Your task to perform on an android device: Go to location settings Image 0: 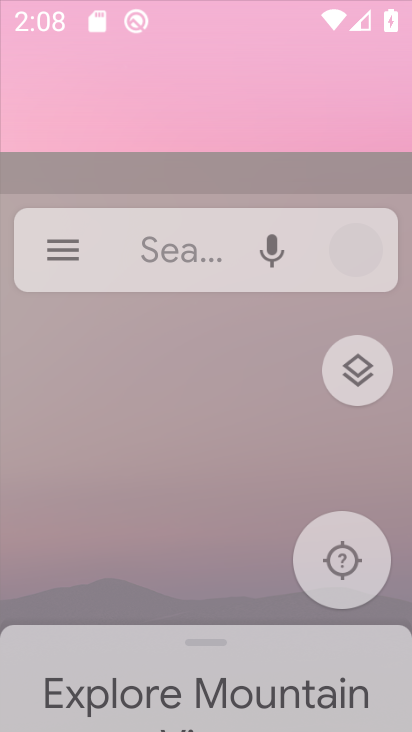
Step 0: press home button
Your task to perform on an android device: Go to location settings Image 1: 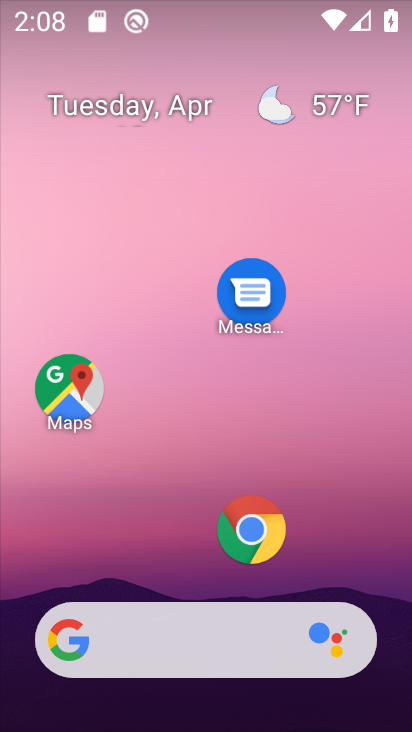
Step 1: drag from (197, 368) to (217, 170)
Your task to perform on an android device: Go to location settings Image 2: 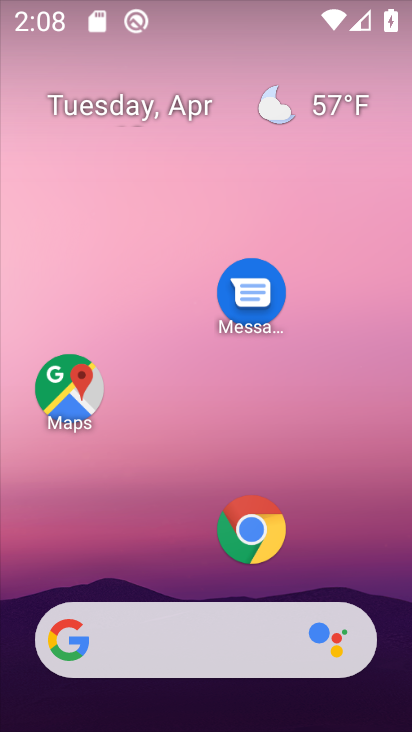
Step 2: drag from (153, 544) to (158, 22)
Your task to perform on an android device: Go to location settings Image 3: 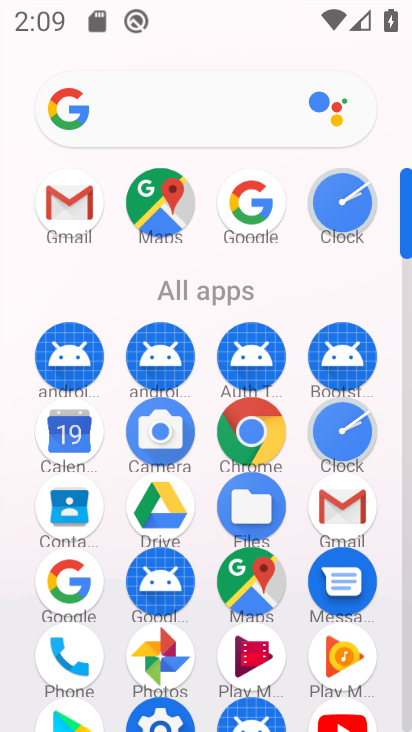
Step 3: click (163, 720)
Your task to perform on an android device: Go to location settings Image 4: 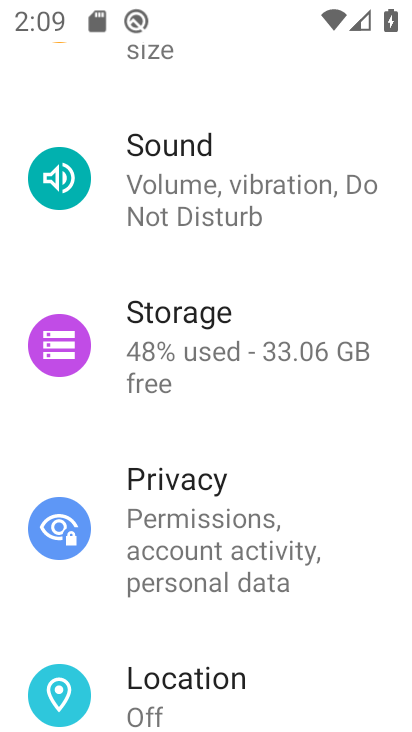
Step 4: click (192, 686)
Your task to perform on an android device: Go to location settings Image 5: 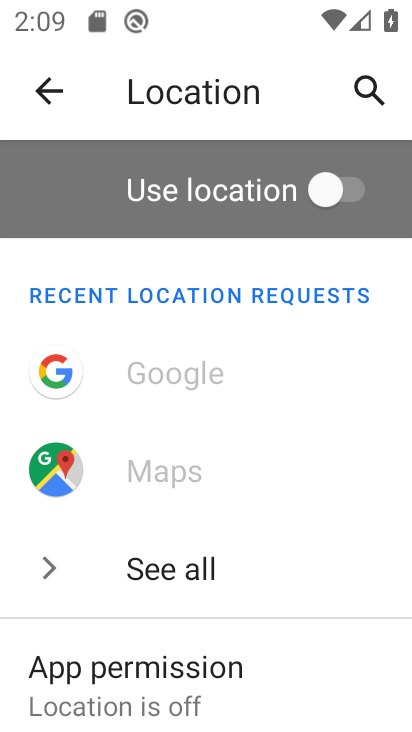
Step 5: task complete